Your task to perform on an android device: uninstall "Facebook Messenger" Image 0: 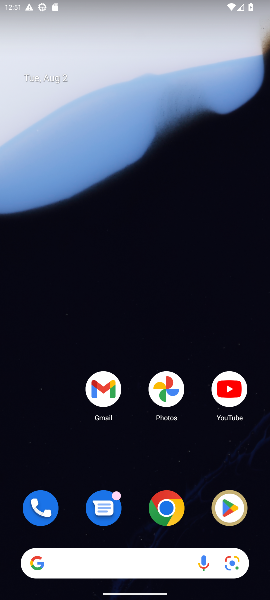
Step 0: click (226, 508)
Your task to perform on an android device: uninstall "Facebook Messenger" Image 1: 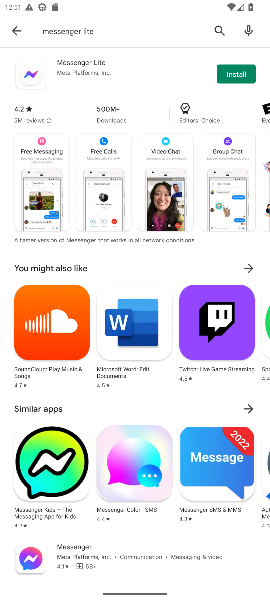
Step 1: click (219, 35)
Your task to perform on an android device: uninstall "Facebook Messenger" Image 2: 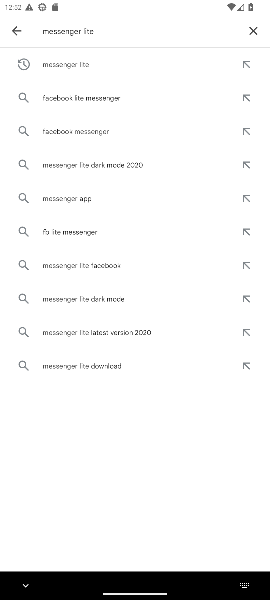
Step 2: click (252, 29)
Your task to perform on an android device: uninstall "Facebook Messenger" Image 3: 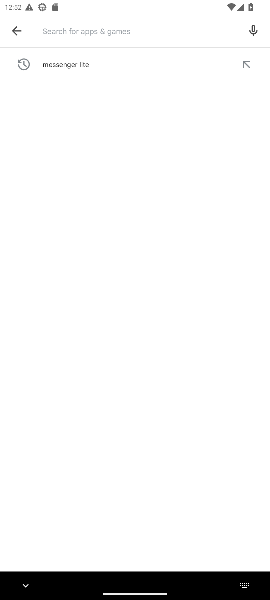
Step 3: type "Facebook Messenger"
Your task to perform on an android device: uninstall "Facebook Messenger" Image 4: 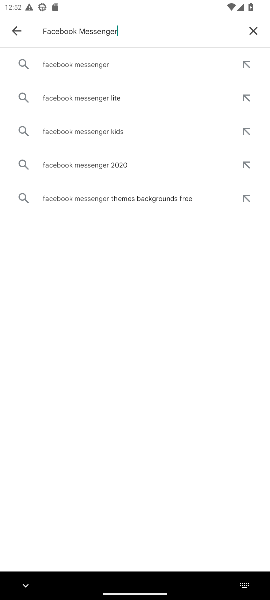
Step 4: click (73, 61)
Your task to perform on an android device: uninstall "Facebook Messenger" Image 5: 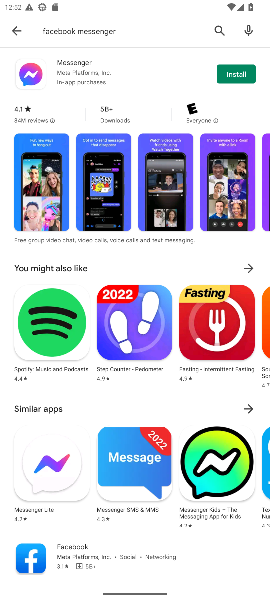
Step 5: task complete